Your task to perform on an android device: set default search engine in the chrome app Image 0: 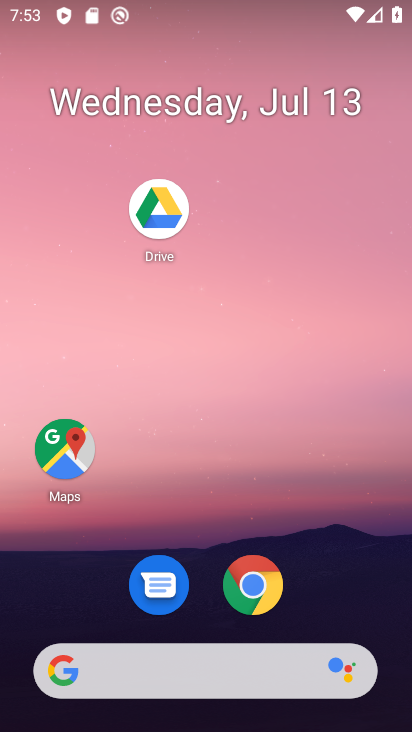
Step 0: click (261, 580)
Your task to perform on an android device: set default search engine in the chrome app Image 1: 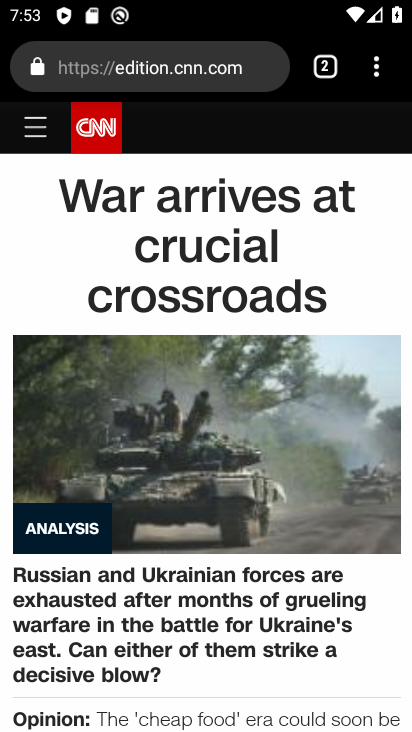
Step 1: drag from (377, 71) to (230, 587)
Your task to perform on an android device: set default search engine in the chrome app Image 2: 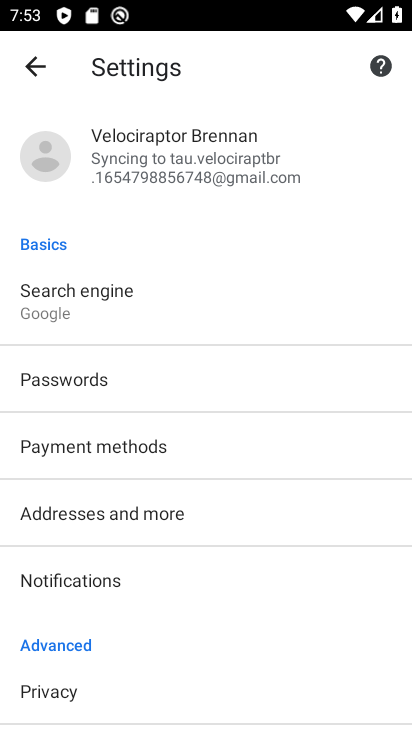
Step 2: click (107, 306)
Your task to perform on an android device: set default search engine in the chrome app Image 3: 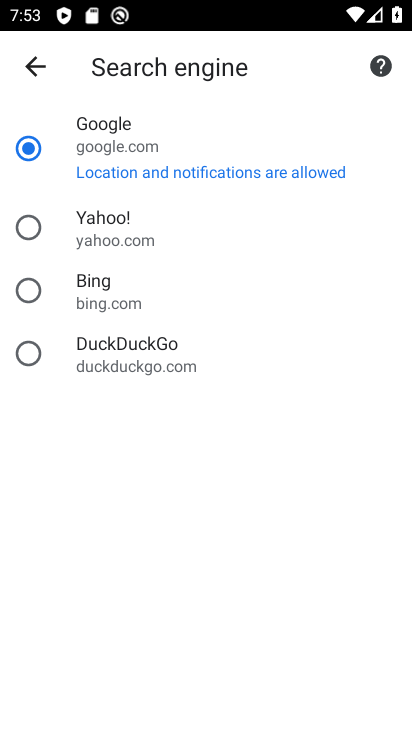
Step 3: click (31, 225)
Your task to perform on an android device: set default search engine in the chrome app Image 4: 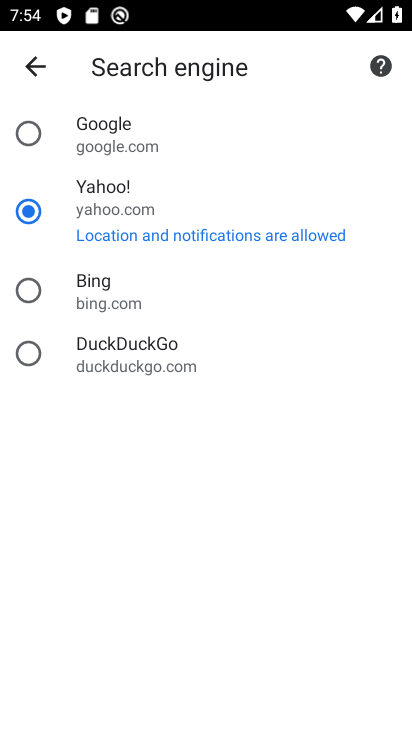
Step 4: task complete